Your task to perform on an android device: turn on javascript in the chrome app Image 0: 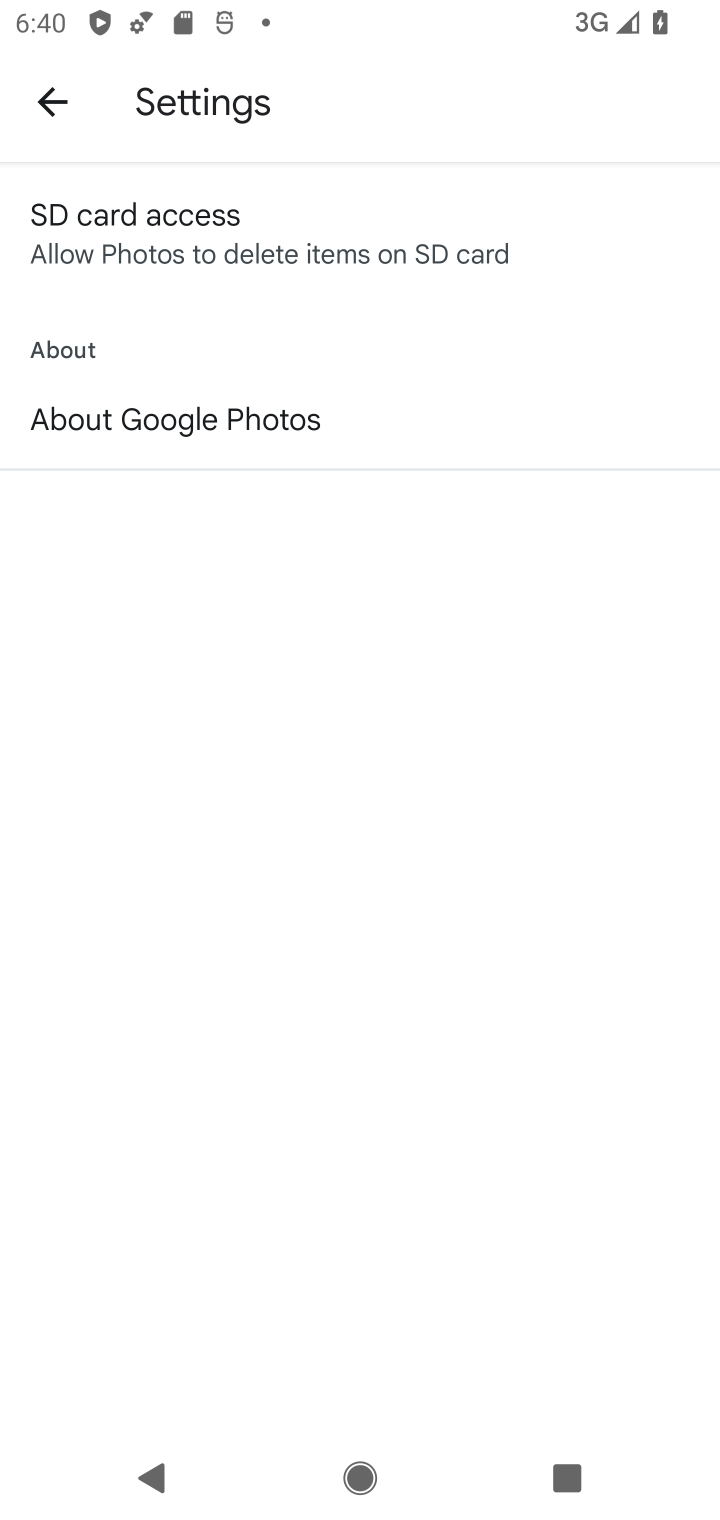
Step 0: press home button
Your task to perform on an android device: turn on javascript in the chrome app Image 1: 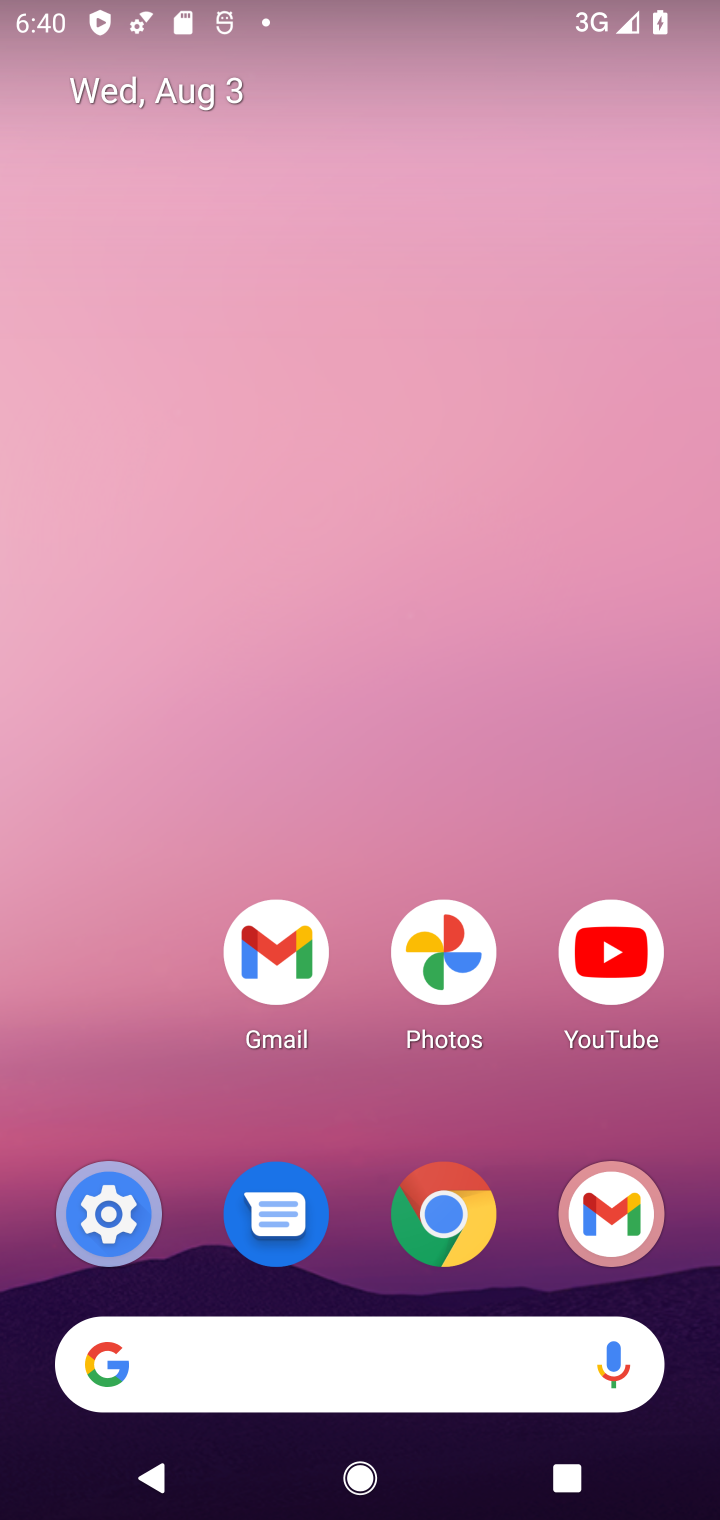
Step 1: drag from (63, 993) to (150, 32)
Your task to perform on an android device: turn on javascript in the chrome app Image 2: 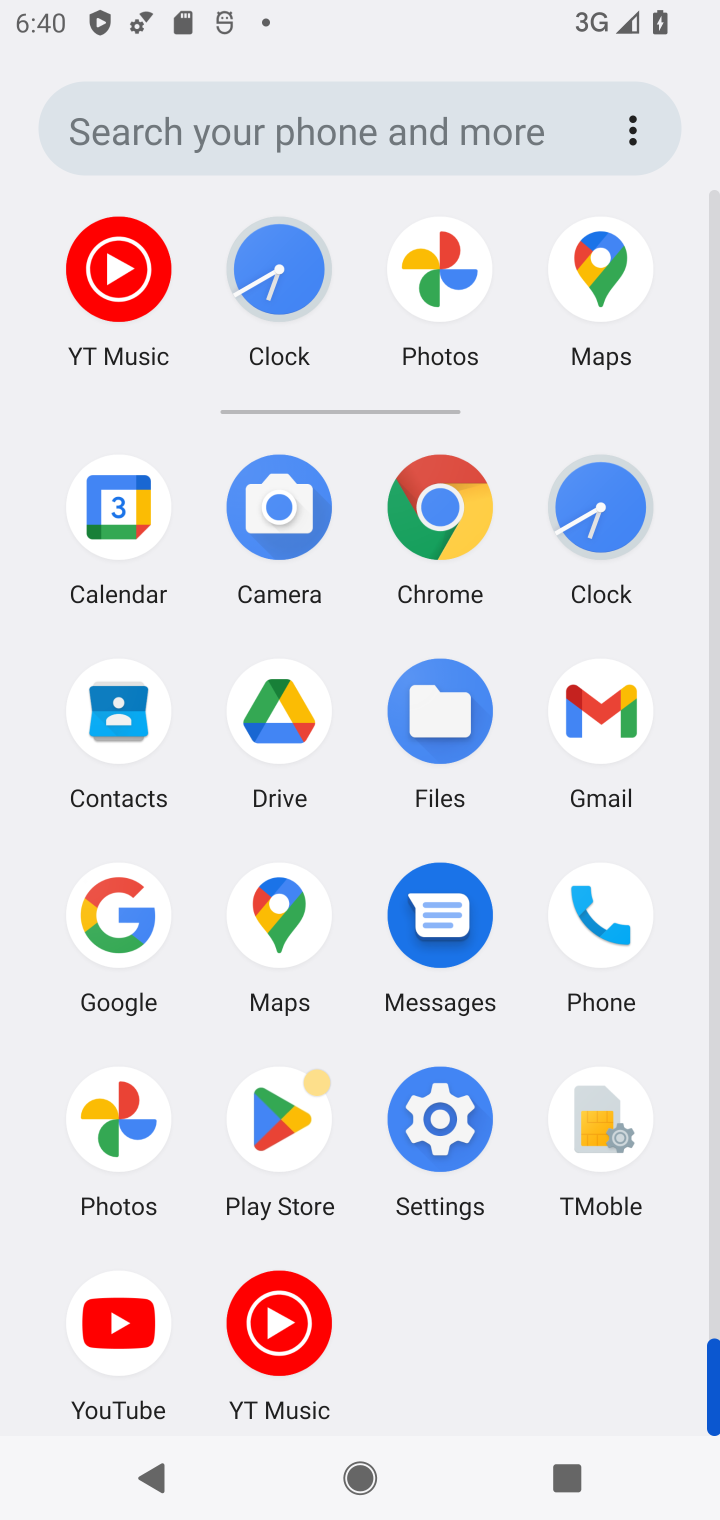
Step 2: click (434, 1127)
Your task to perform on an android device: turn on javascript in the chrome app Image 3: 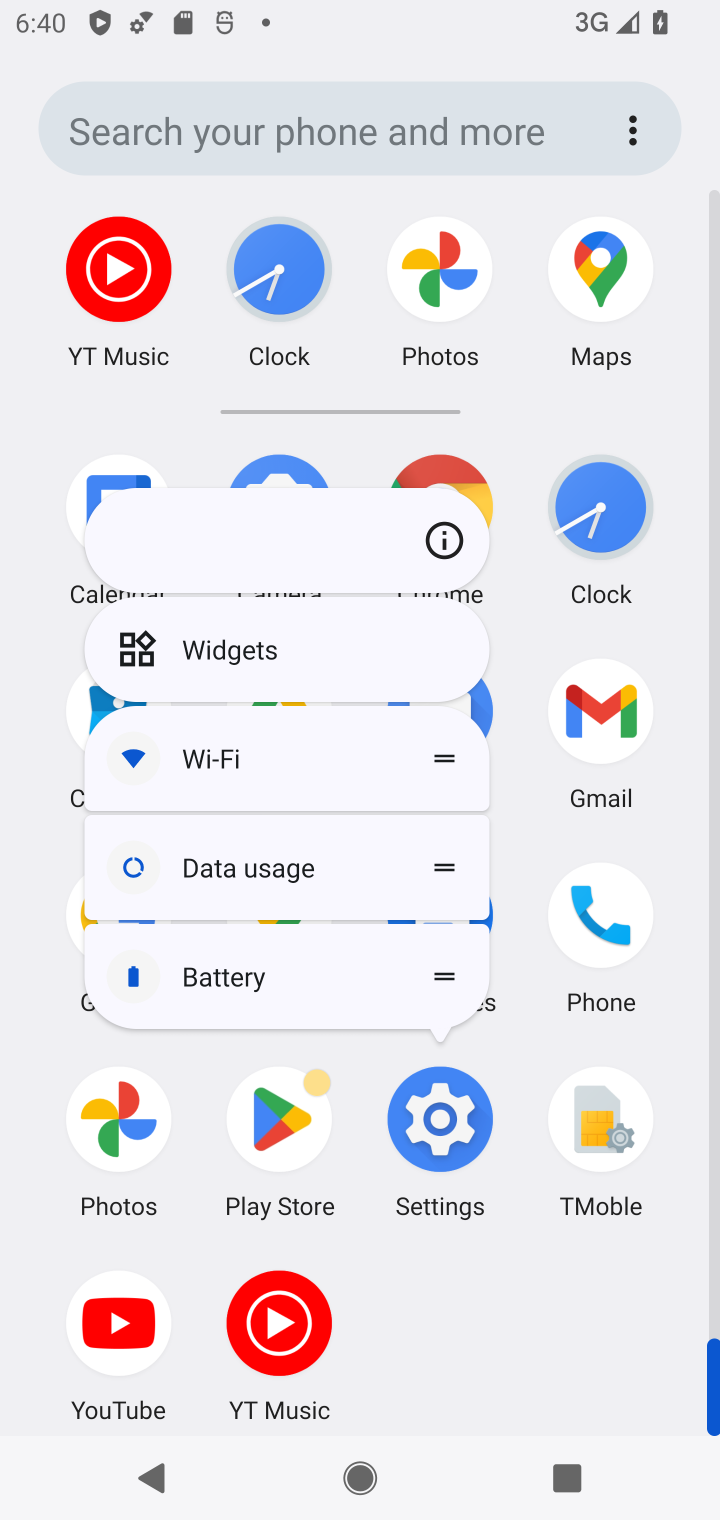
Step 3: click (434, 1126)
Your task to perform on an android device: turn on javascript in the chrome app Image 4: 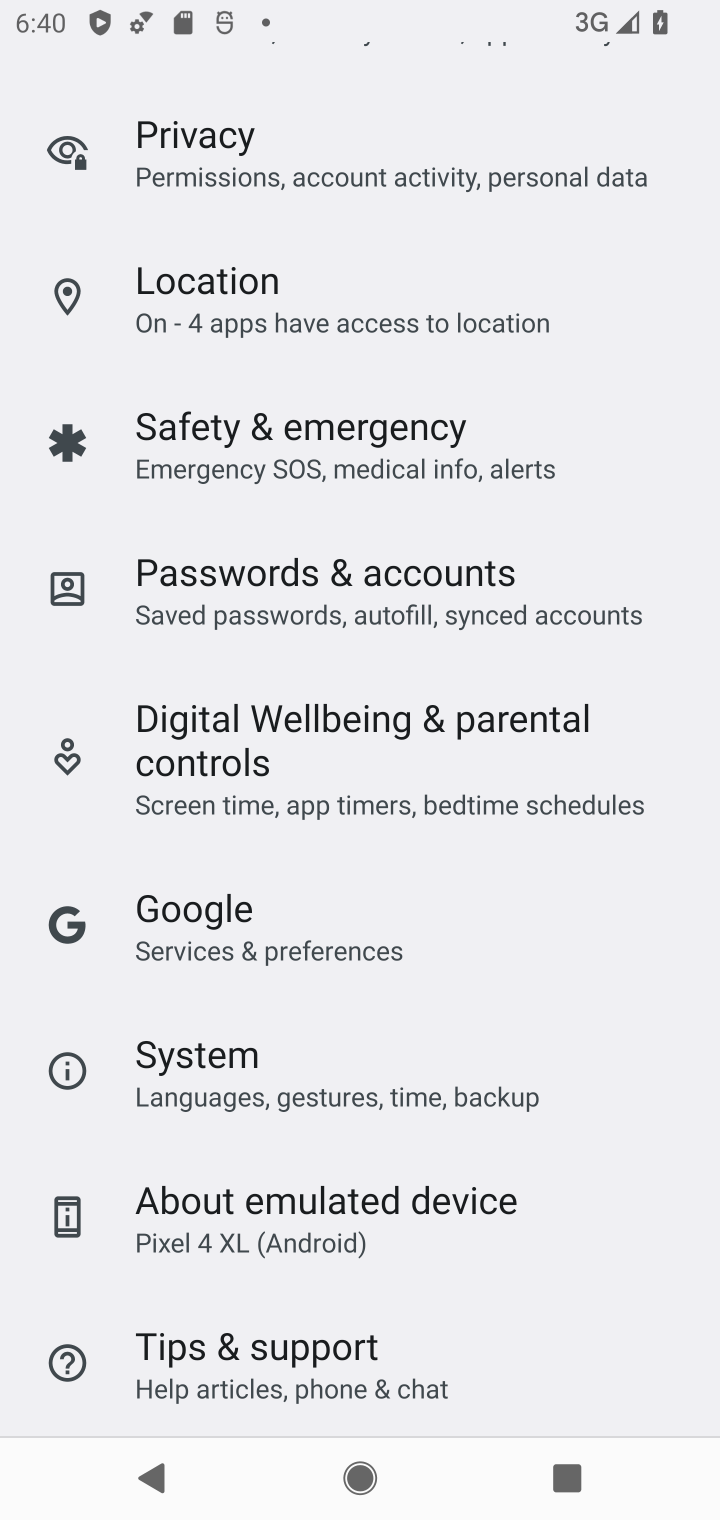
Step 4: drag from (366, 272) to (242, 1393)
Your task to perform on an android device: turn on javascript in the chrome app Image 5: 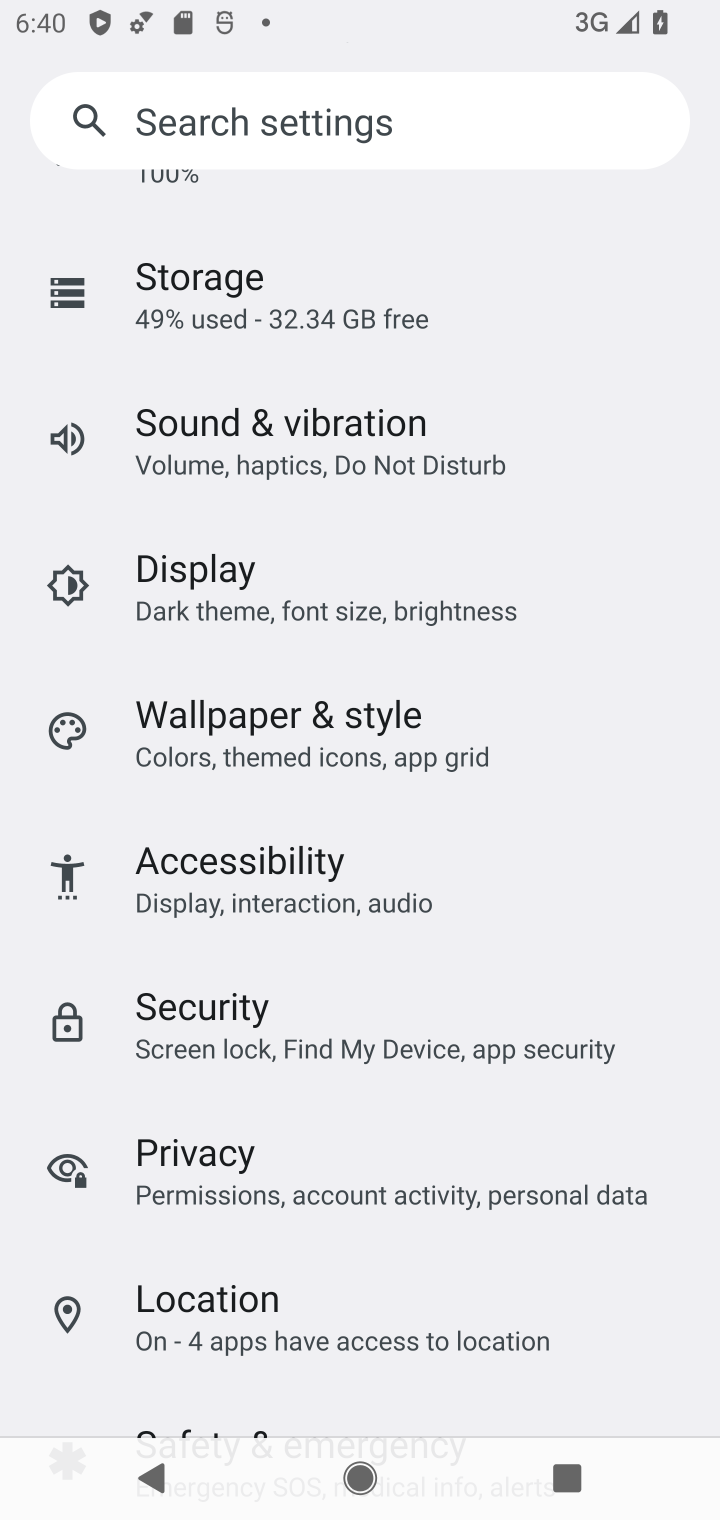
Step 5: drag from (416, 336) to (361, 1440)
Your task to perform on an android device: turn on javascript in the chrome app Image 6: 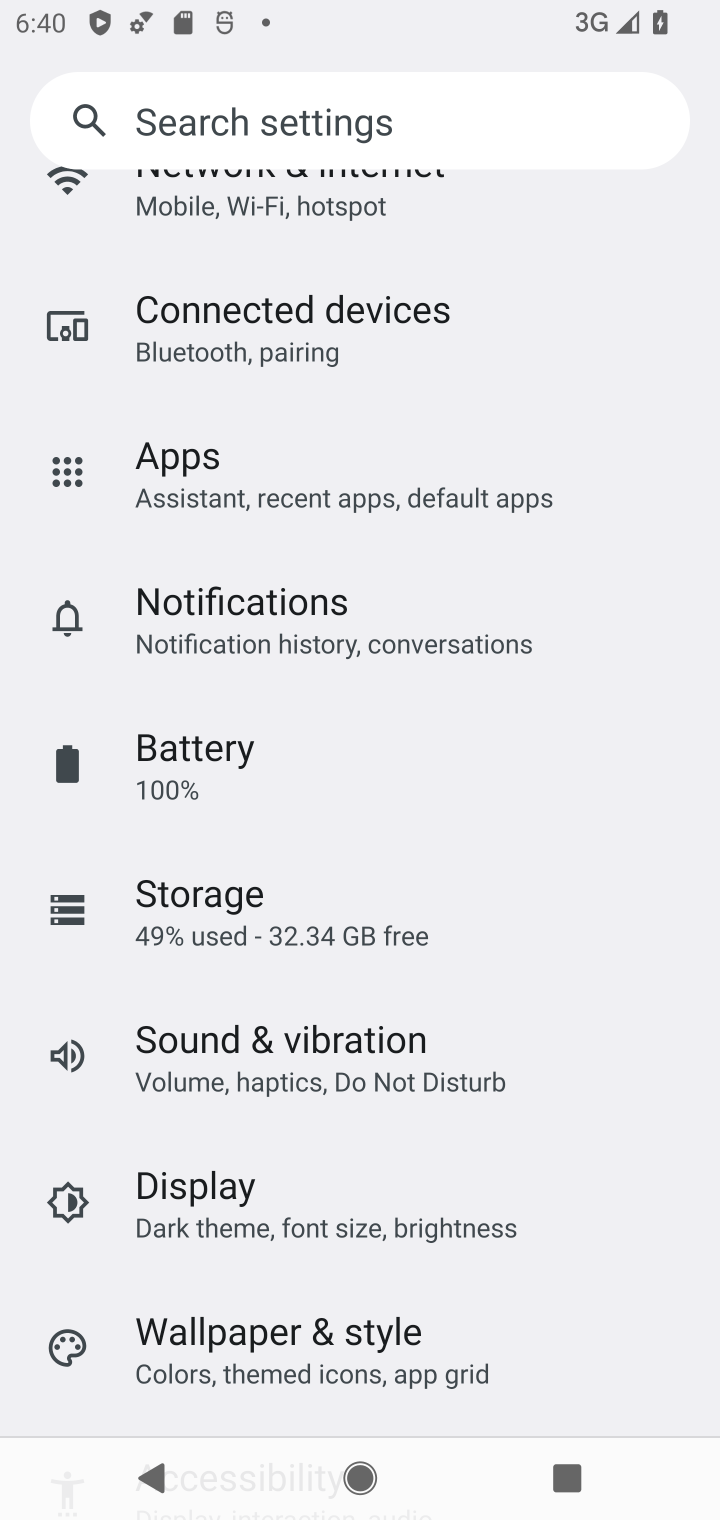
Step 6: drag from (493, 425) to (488, 1420)
Your task to perform on an android device: turn on javascript in the chrome app Image 7: 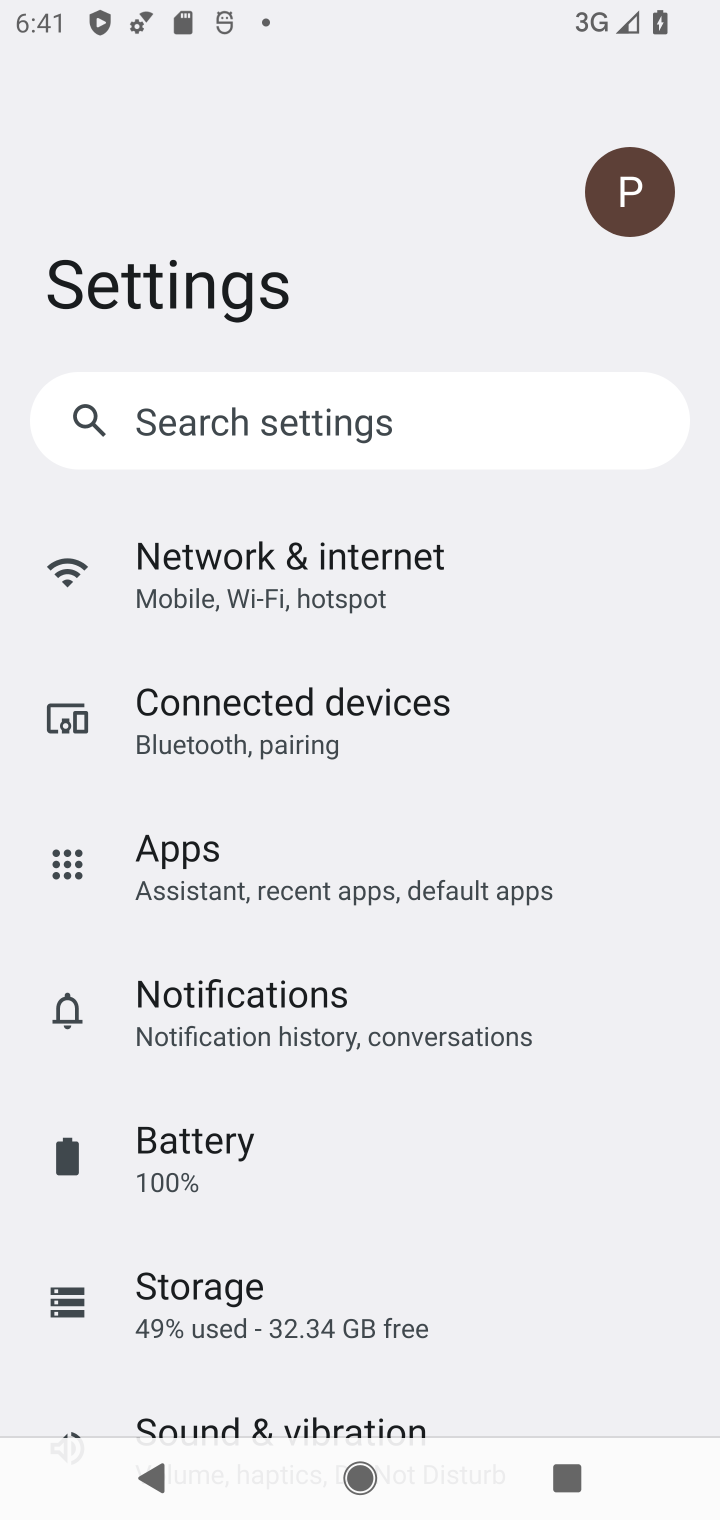
Step 7: press home button
Your task to perform on an android device: turn on javascript in the chrome app Image 8: 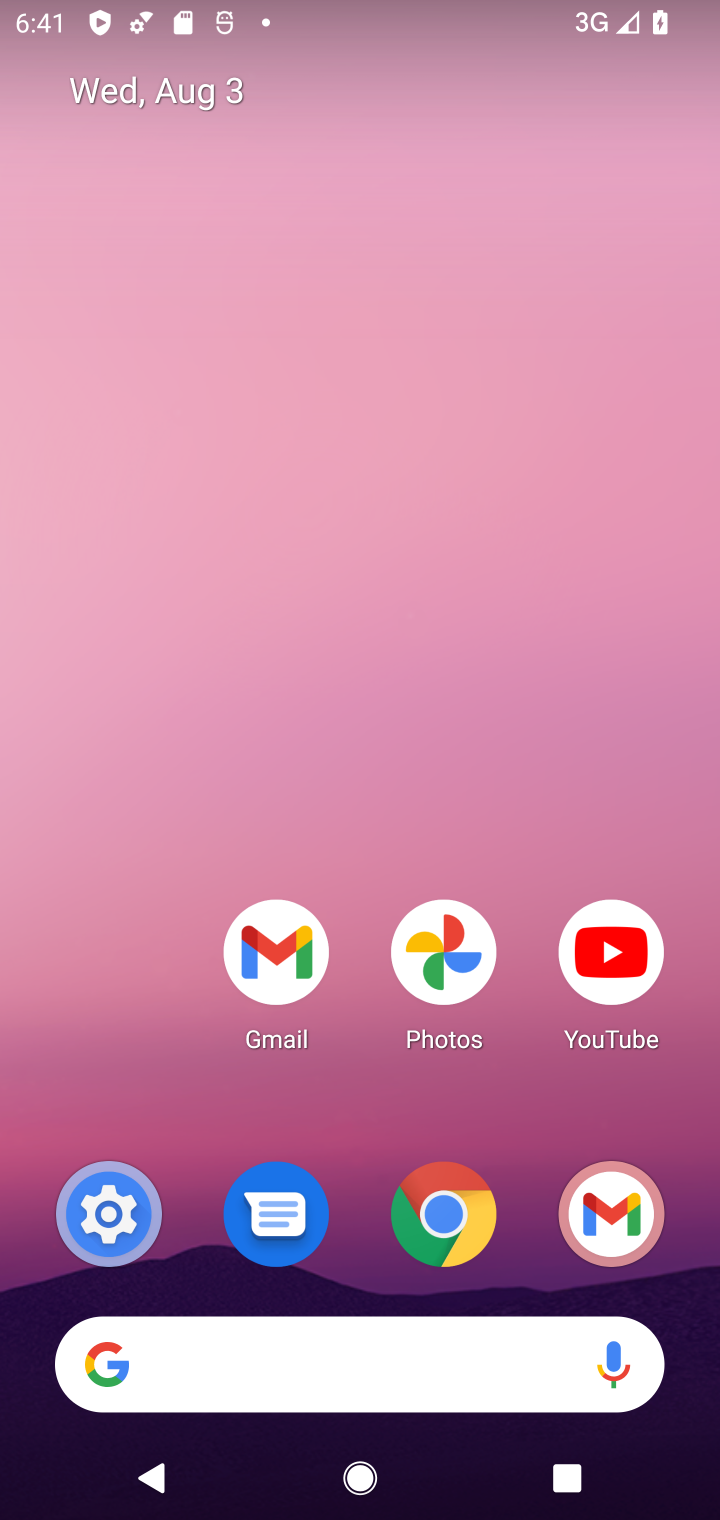
Step 8: click (432, 1217)
Your task to perform on an android device: turn on javascript in the chrome app Image 9: 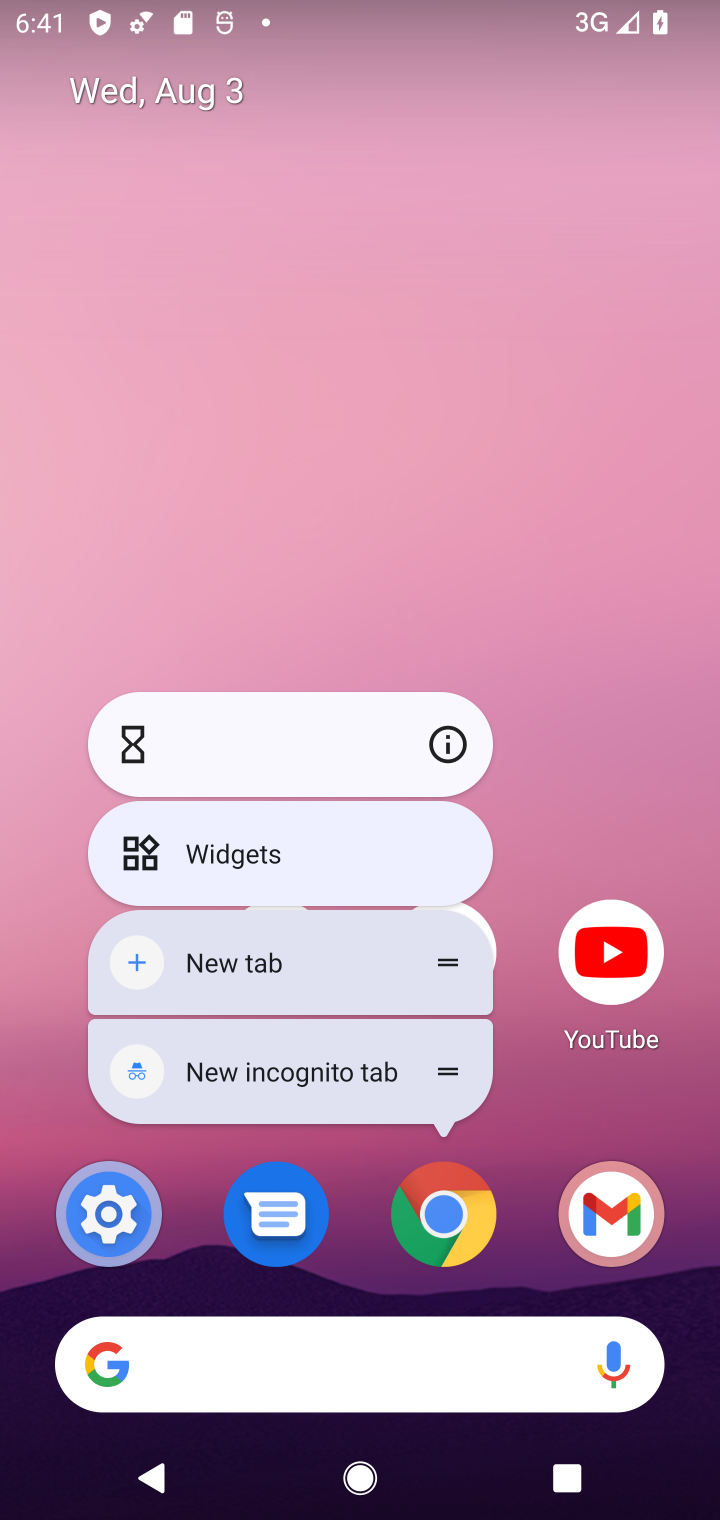
Step 9: click (432, 1215)
Your task to perform on an android device: turn on javascript in the chrome app Image 10: 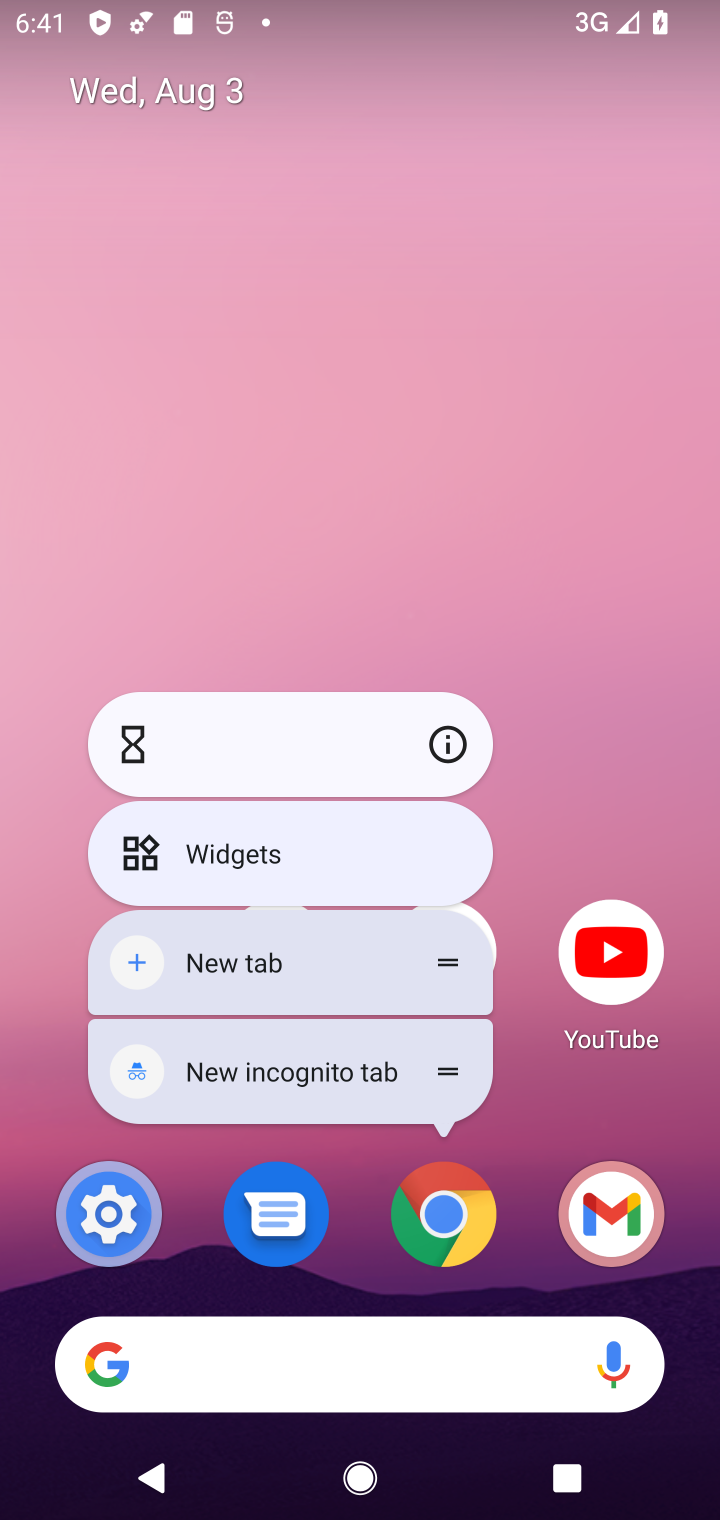
Step 10: click (423, 1210)
Your task to perform on an android device: turn on javascript in the chrome app Image 11: 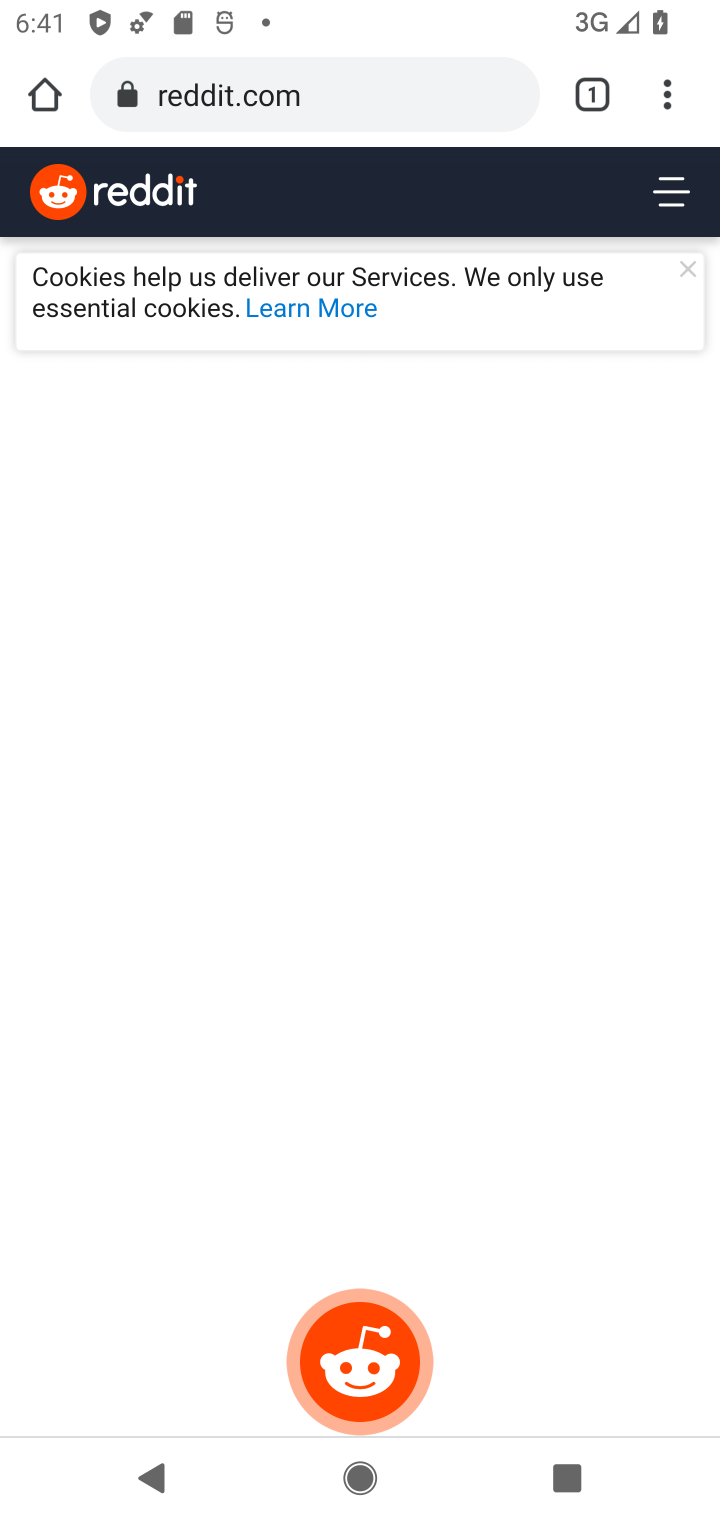
Step 11: drag from (671, 101) to (393, 1204)
Your task to perform on an android device: turn on javascript in the chrome app Image 12: 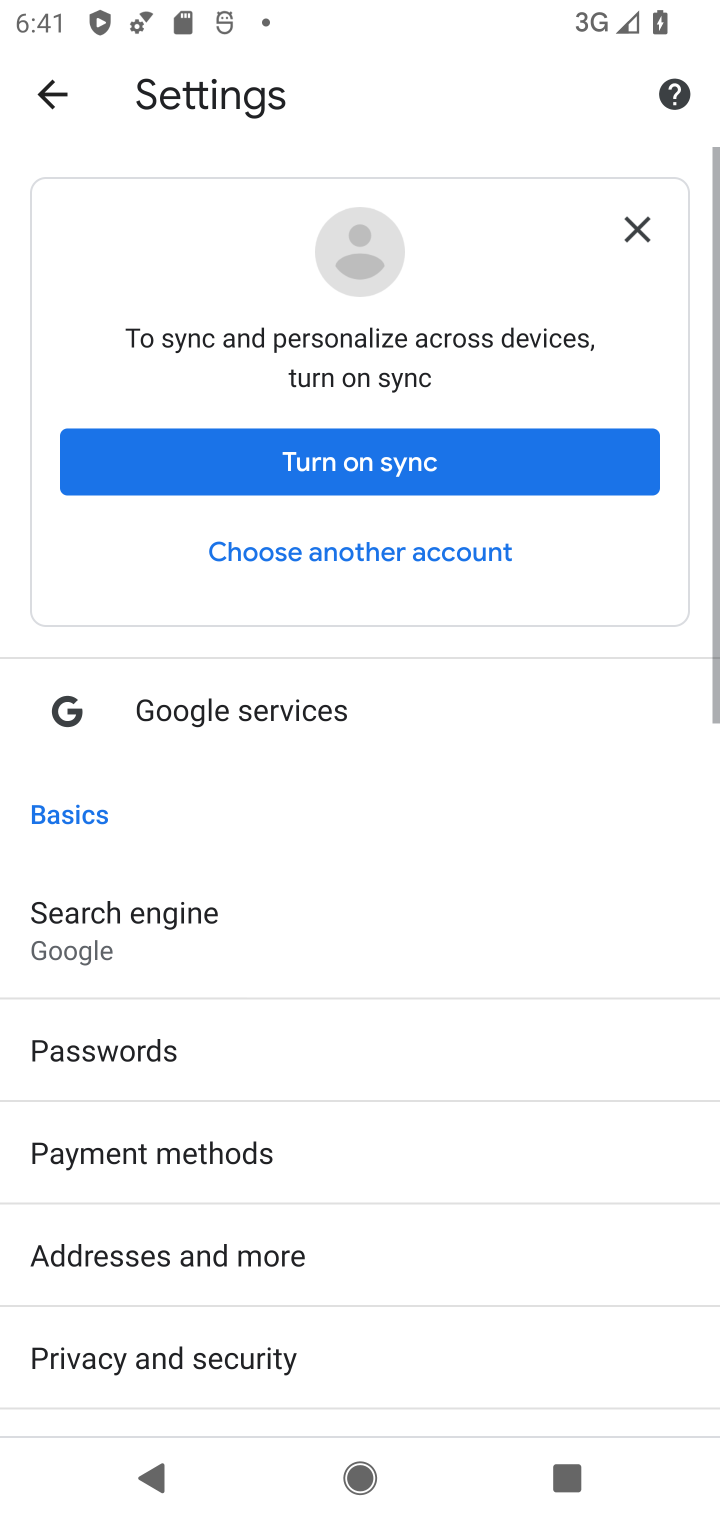
Step 12: drag from (371, 1026) to (506, 222)
Your task to perform on an android device: turn on javascript in the chrome app Image 13: 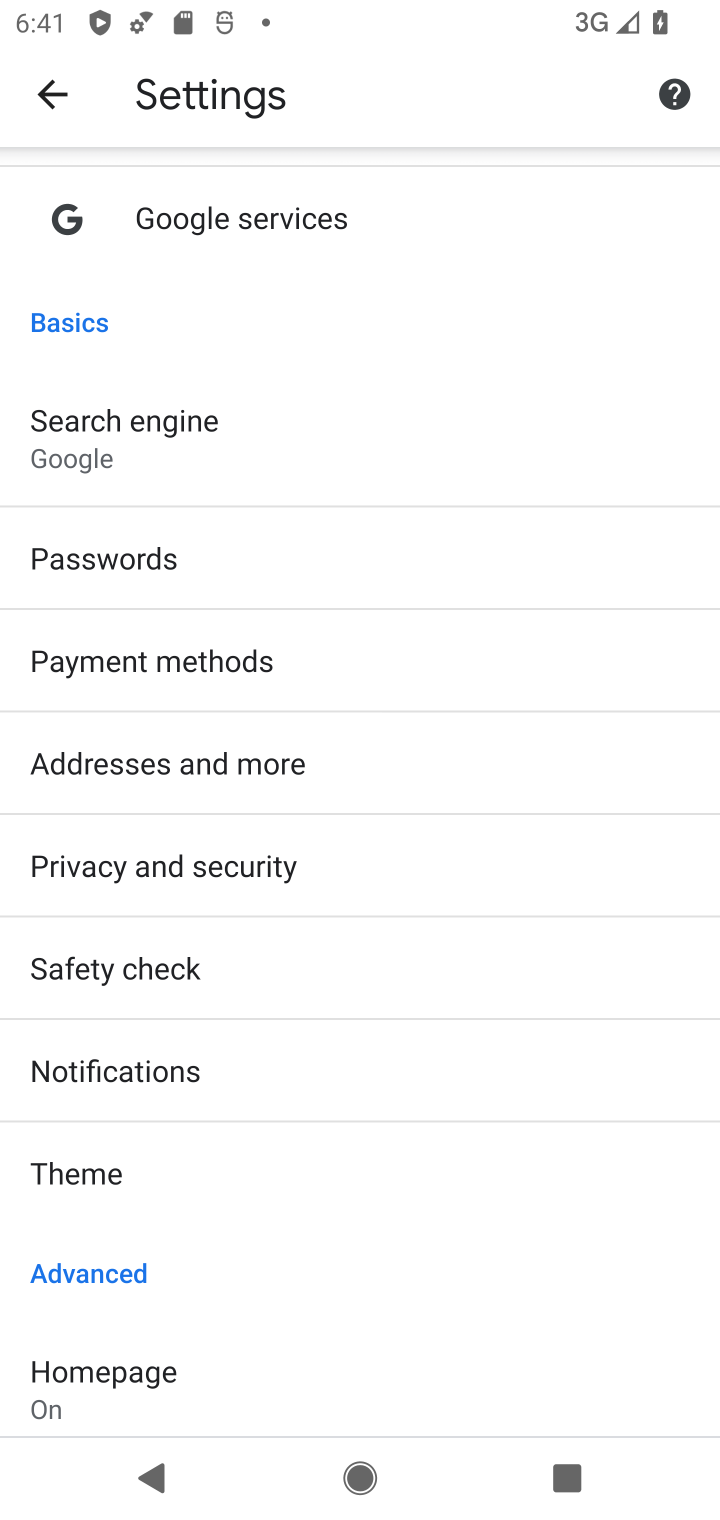
Step 13: drag from (341, 1341) to (450, 310)
Your task to perform on an android device: turn on javascript in the chrome app Image 14: 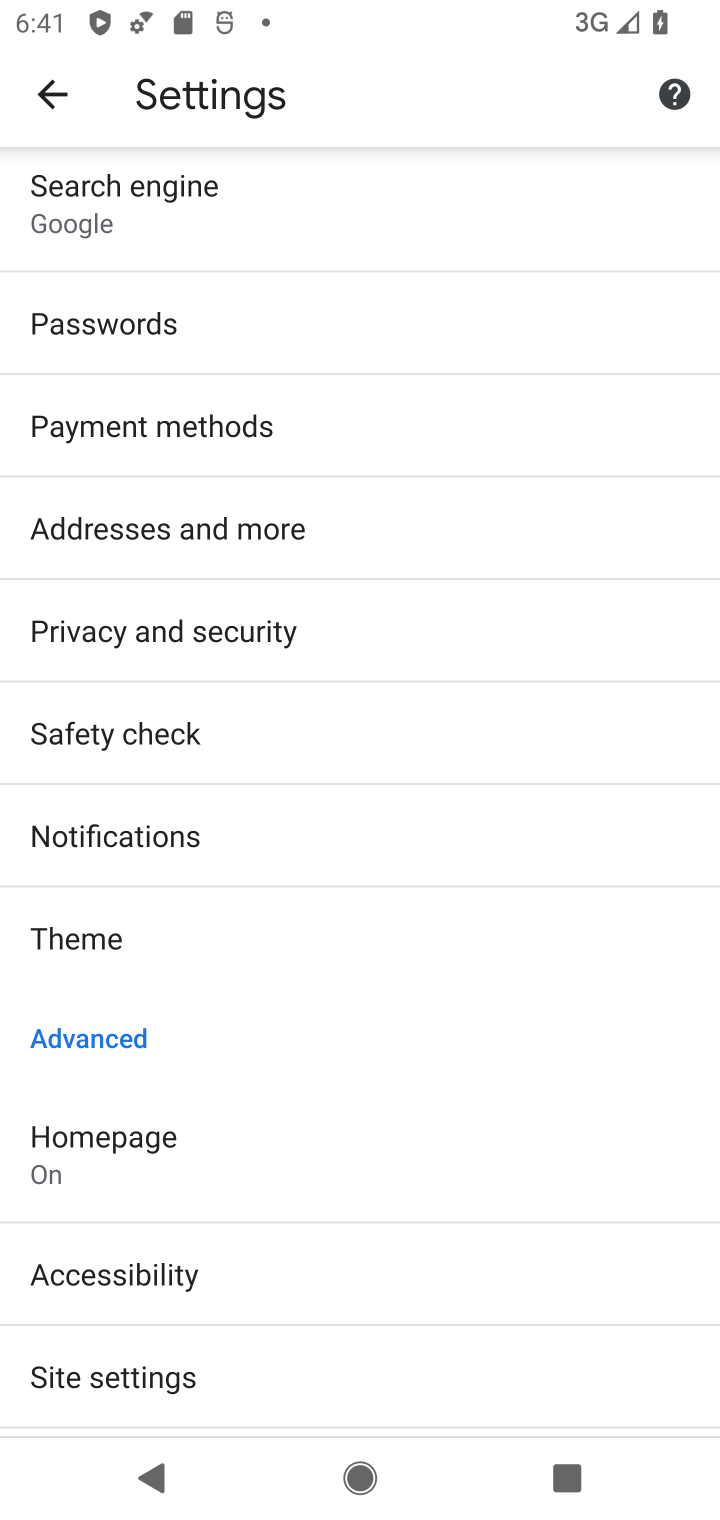
Step 14: click (207, 1382)
Your task to perform on an android device: turn on javascript in the chrome app Image 15: 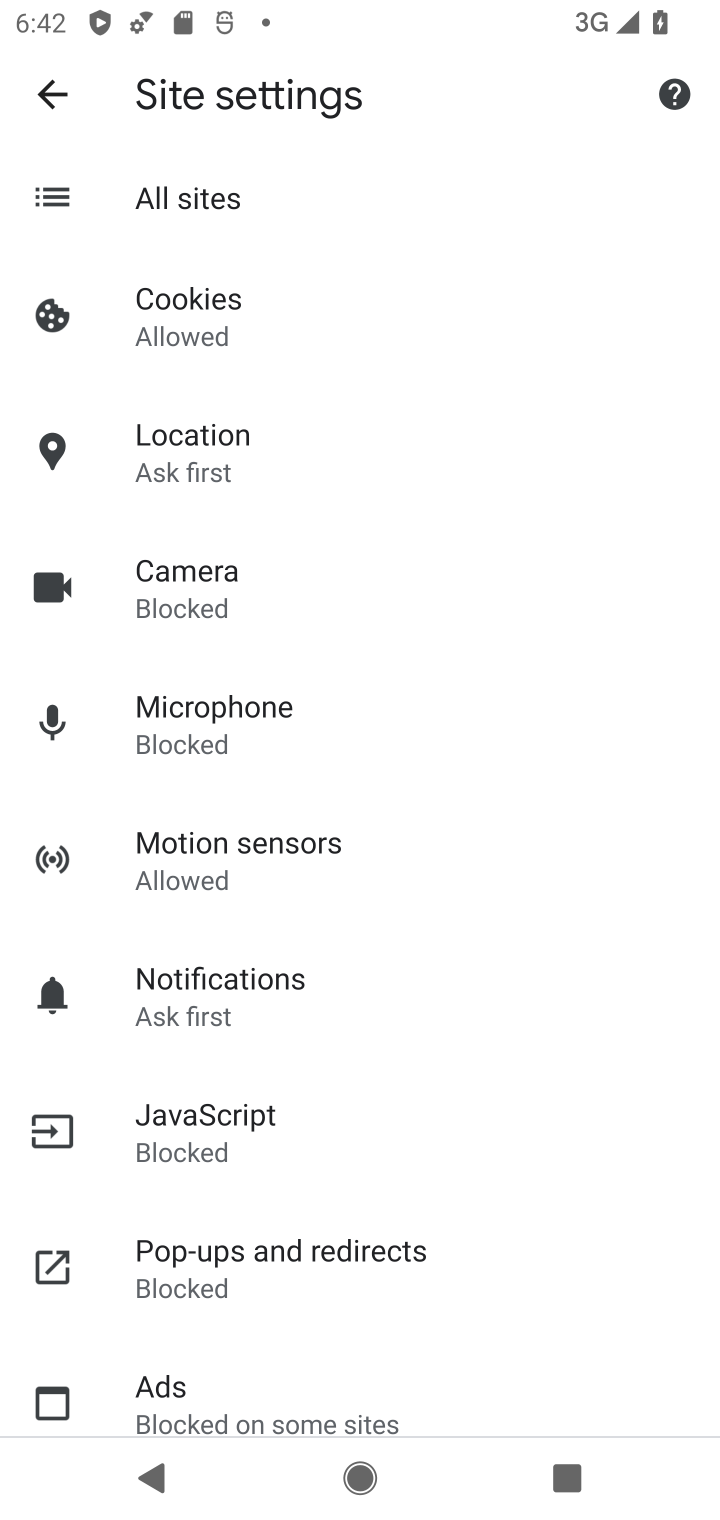
Step 15: click (206, 1161)
Your task to perform on an android device: turn on javascript in the chrome app Image 16: 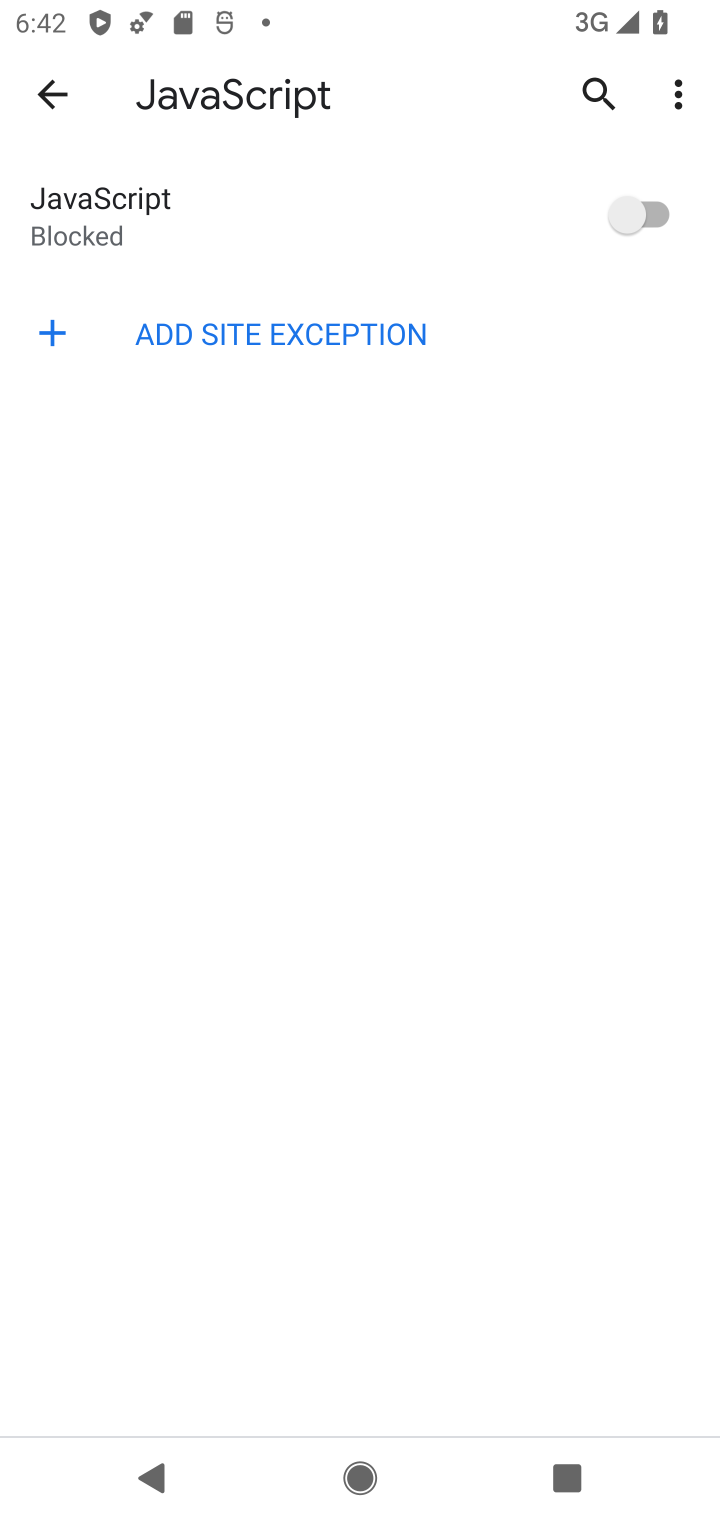
Step 16: click (616, 240)
Your task to perform on an android device: turn on javascript in the chrome app Image 17: 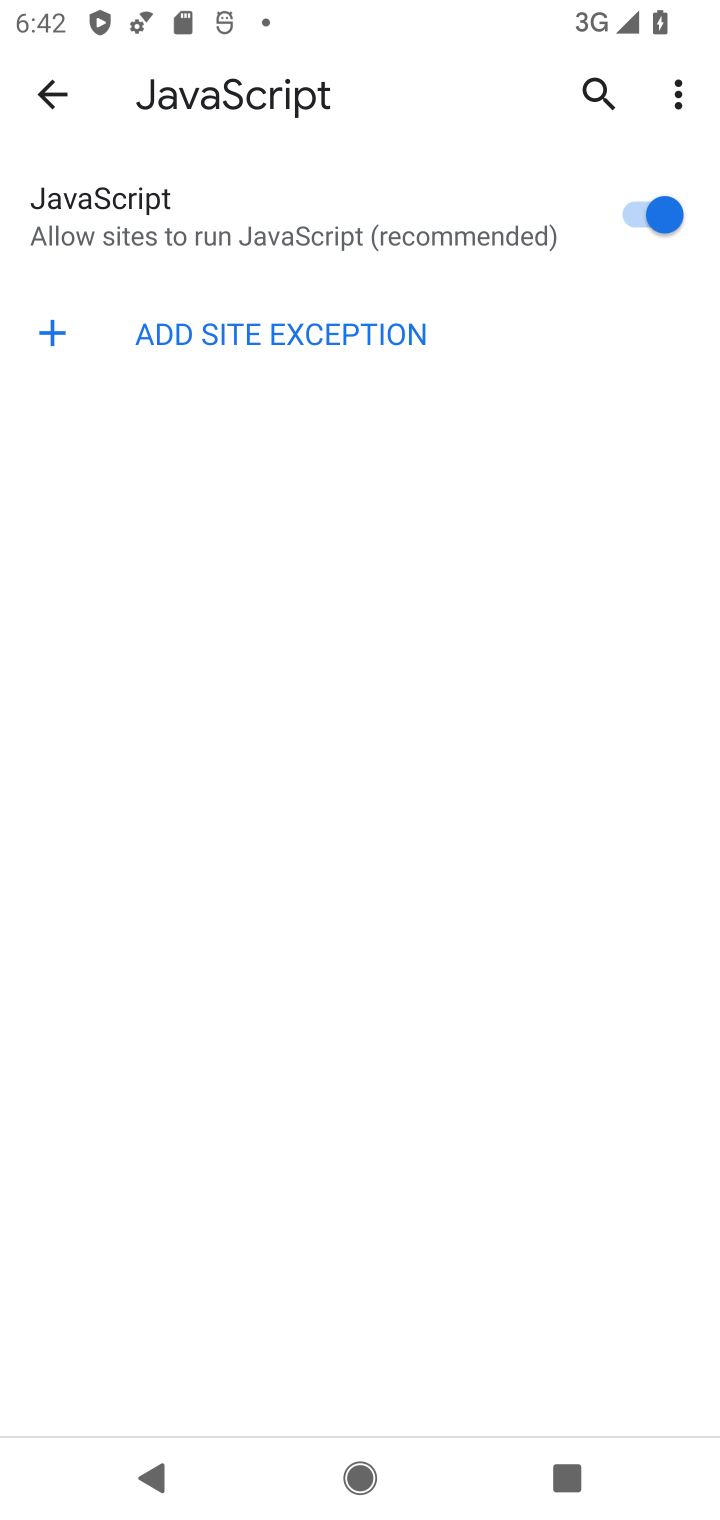
Step 17: task complete